Your task to perform on an android device: Open Chrome and go to the settings page Image 0: 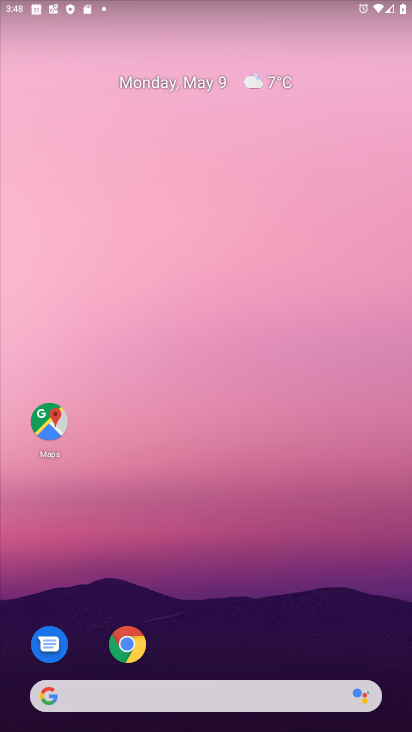
Step 0: drag from (295, 534) to (117, 104)
Your task to perform on an android device: Open Chrome and go to the settings page Image 1: 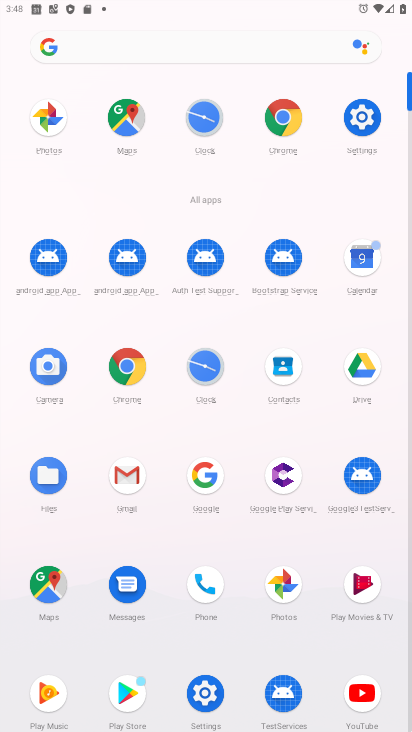
Step 1: click (286, 122)
Your task to perform on an android device: Open Chrome and go to the settings page Image 2: 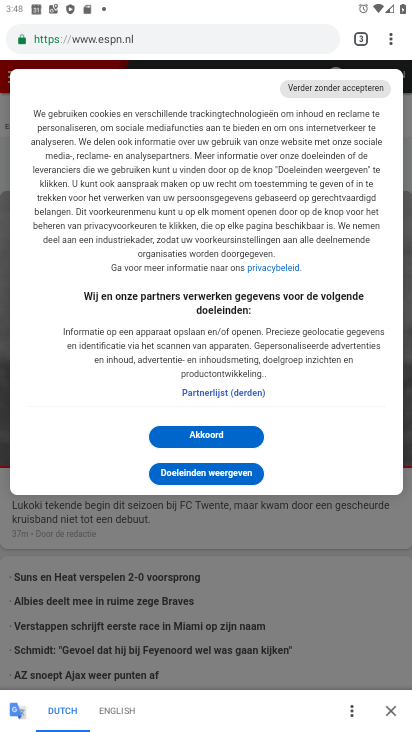
Step 2: press home button
Your task to perform on an android device: Open Chrome and go to the settings page Image 3: 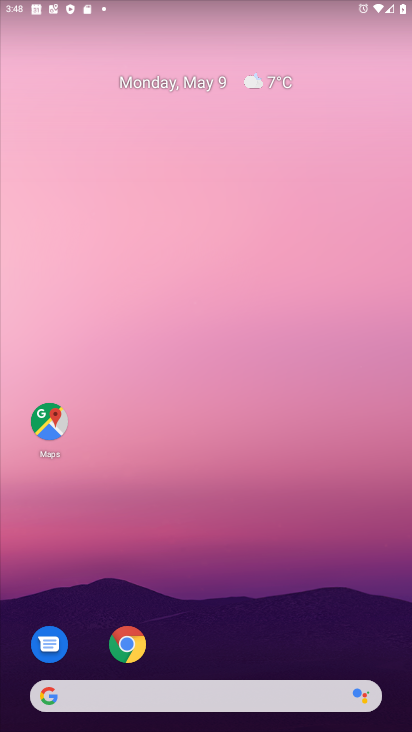
Step 3: drag from (263, 719) to (1, 68)
Your task to perform on an android device: Open Chrome and go to the settings page Image 4: 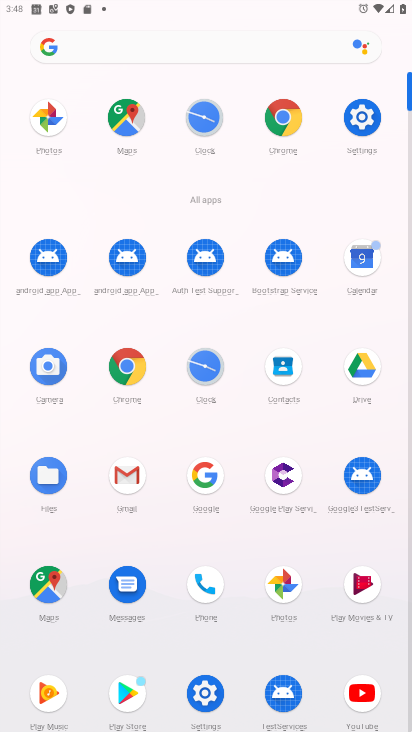
Step 4: click (134, 366)
Your task to perform on an android device: Open Chrome and go to the settings page Image 5: 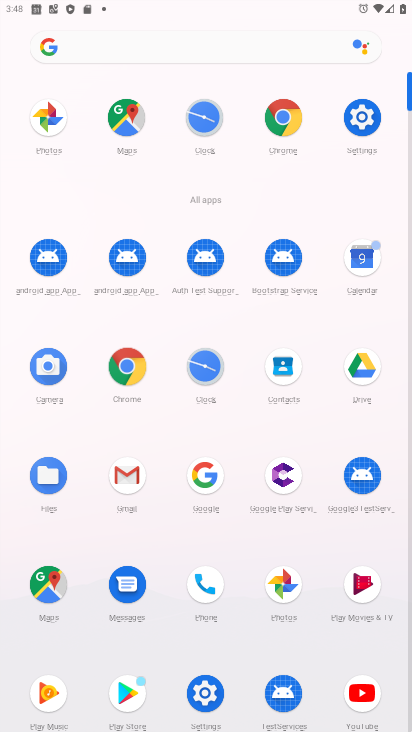
Step 5: click (134, 367)
Your task to perform on an android device: Open Chrome and go to the settings page Image 6: 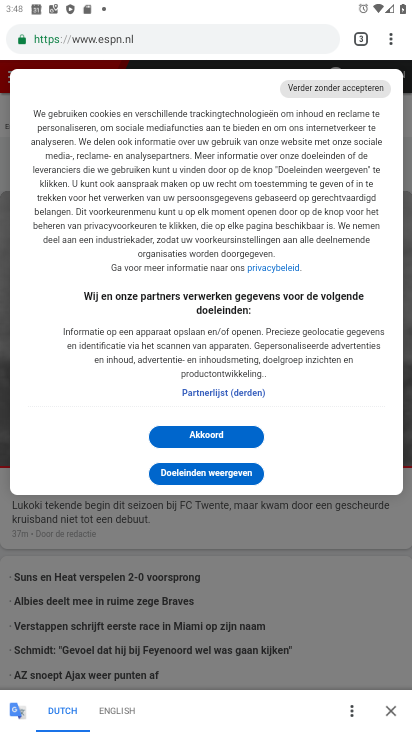
Step 6: click (232, 422)
Your task to perform on an android device: Open Chrome and go to the settings page Image 7: 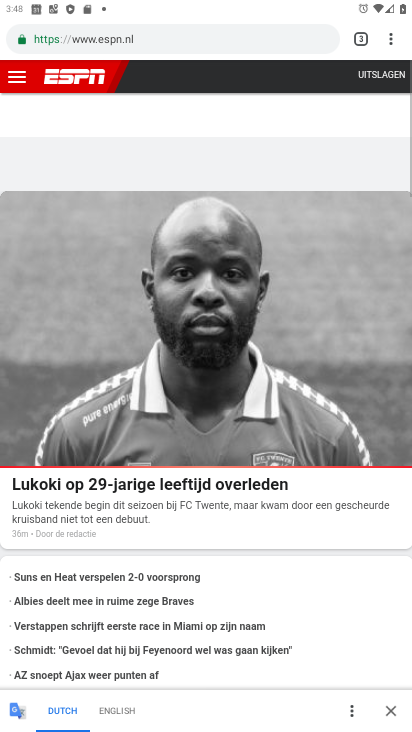
Step 7: drag from (387, 36) to (243, 465)
Your task to perform on an android device: Open Chrome and go to the settings page Image 8: 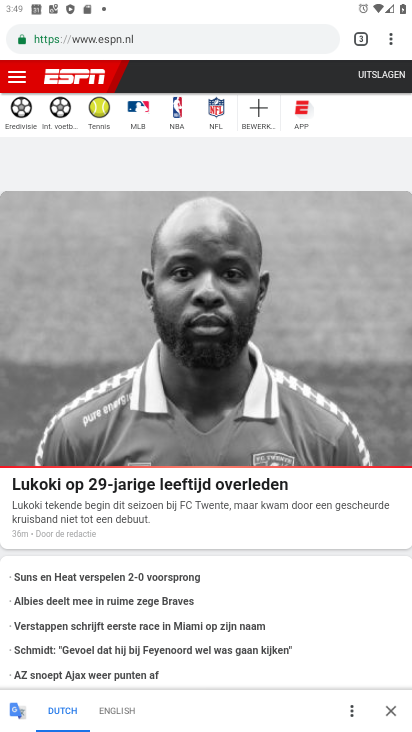
Step 8: click (243, 470)
Your task to perform on an android device: Open Chrome and go to the settings page Image 9: 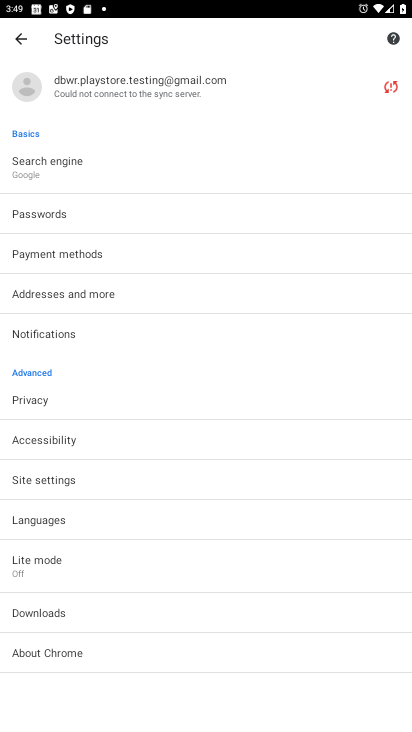
Step 9: task complete